Your task to perform on an android device: Go to internet settings Image 0: 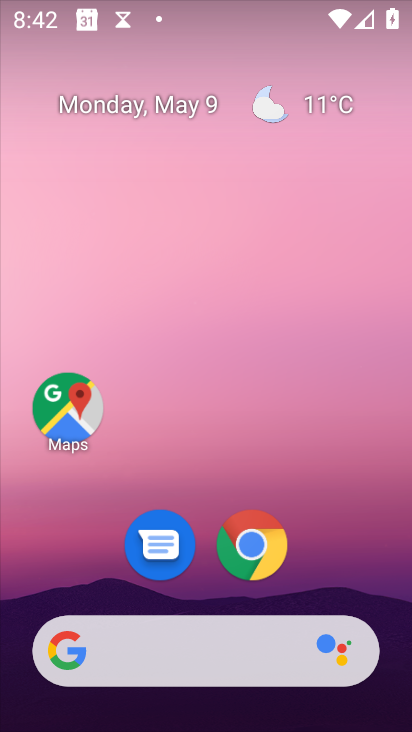
Step 0: drag from (213, 687) to (224, 126)
Your task to perform on an android device: Go to internet settings Image 1: 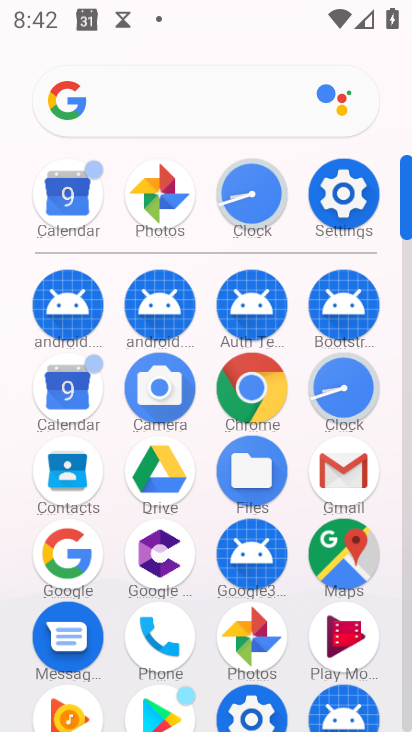
Step 1: click (349, 198)
Your task to perform on an android device: Go to internet settings Image 2: 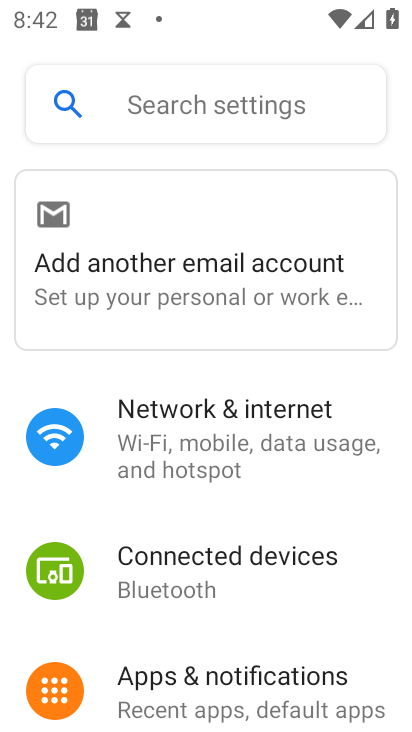
Step 2: click (212, 443)
Your task to perform on an android device: Go to internet settings Image 3: 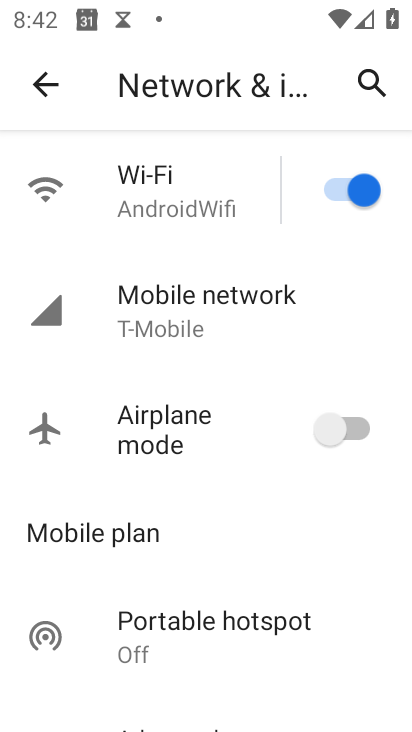
Step 3: click (175, 301)
Your task to perform on an android device: Go to internet settings Image 4: 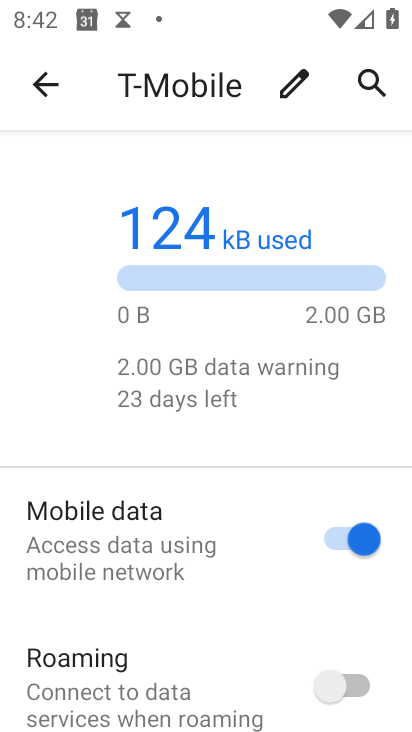
Step 4: task complete